Your task to perform on an android device: Search for sushi restaurants on Maps Image 0: 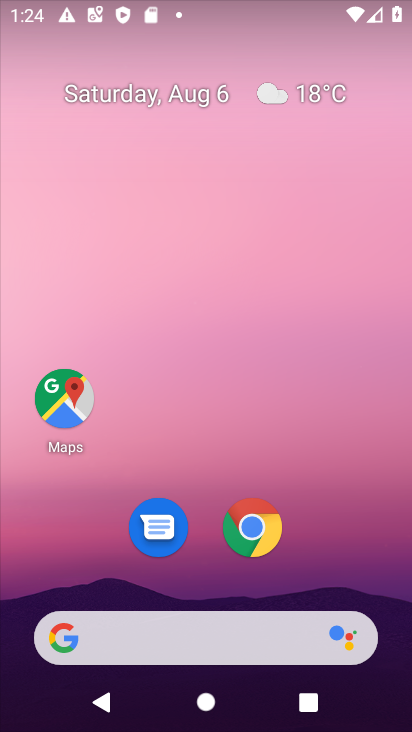
Step 0: drag from (193, 576) to (208, 88)
Your task to perform on an android device: Search for sushi restaurants on Maps Image 1: 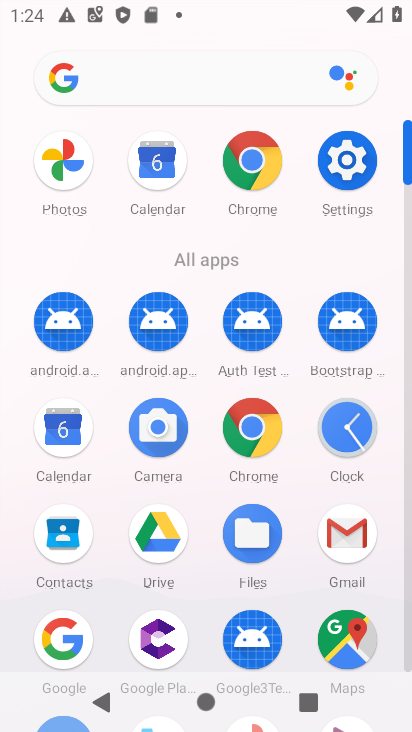
Step 1: click (364, 651)
Your task to perform on an android device: Search for sushi restaurants on Maps Image 2: 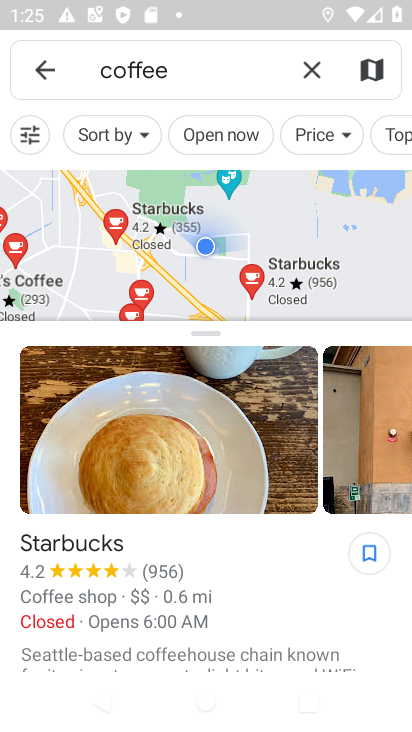
Step 2: click (308, 68)
Your task to perform on an android device: Search for sushi restaurants on Maps Image 3: 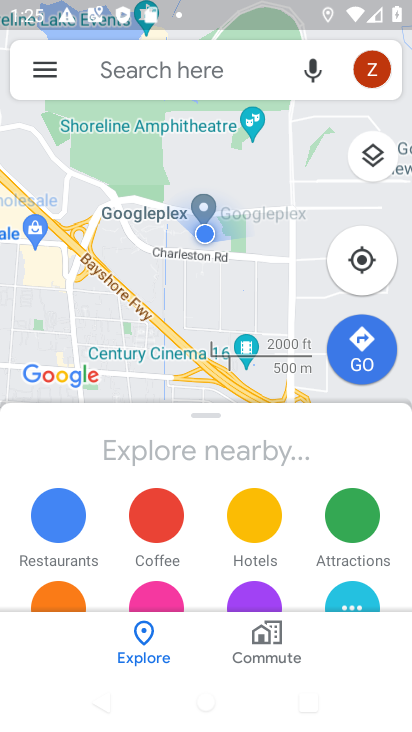
Step 3: click (222, 66)
Your task to perform on an android device: Search for sushi restaurants on Maps Image 4: 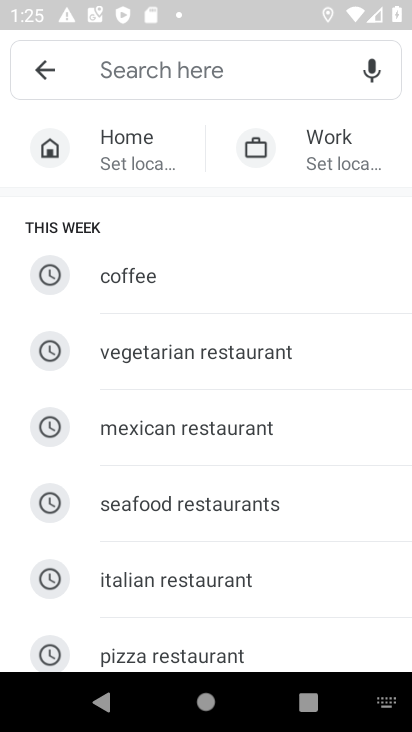
Step 4: drag from (194, 258) to (194, 2)
Your task to perform on an android device: Search for sushi restaurants on Maps Image 5: 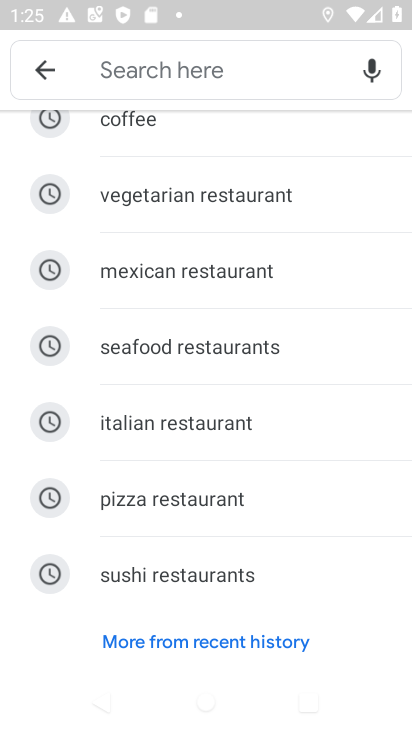
Step 5: click (198, 573)
Your task to perform on an android device: Search for sushi restaurants on Maps Image 6: 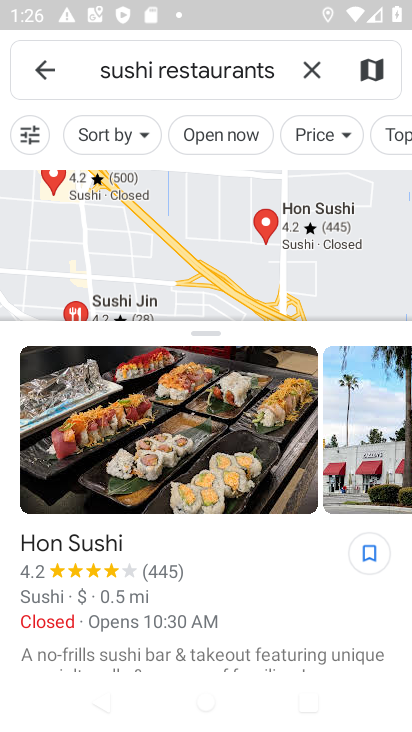
Step 6: task complete